Your task to perform on an android device: toggle translation in the chrome app Image 0: 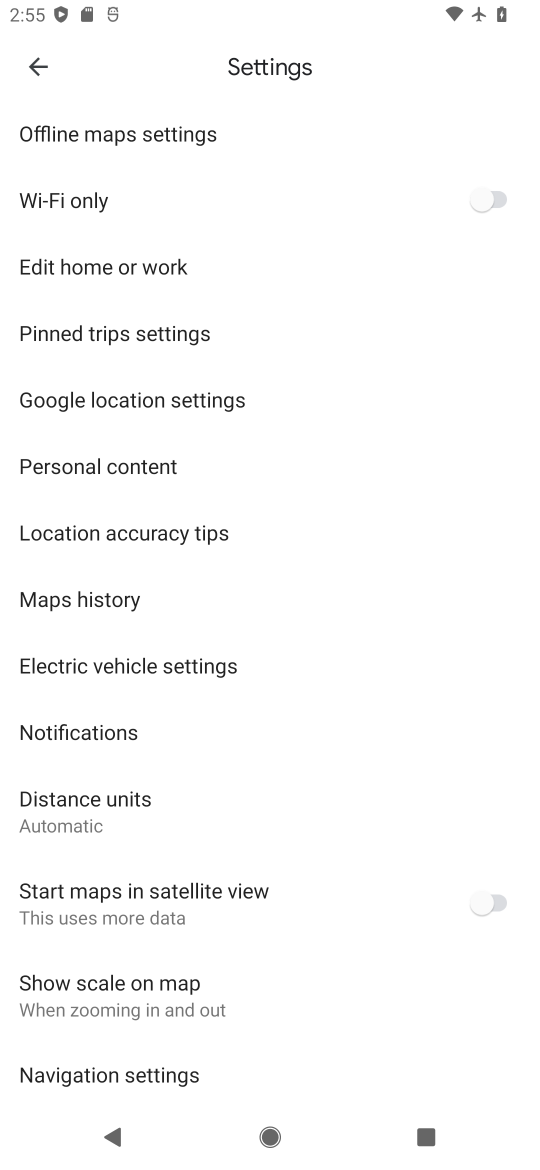
Step 0: press home button
Your task to perform on an android device: toggle translation in the chrome app Image 1: 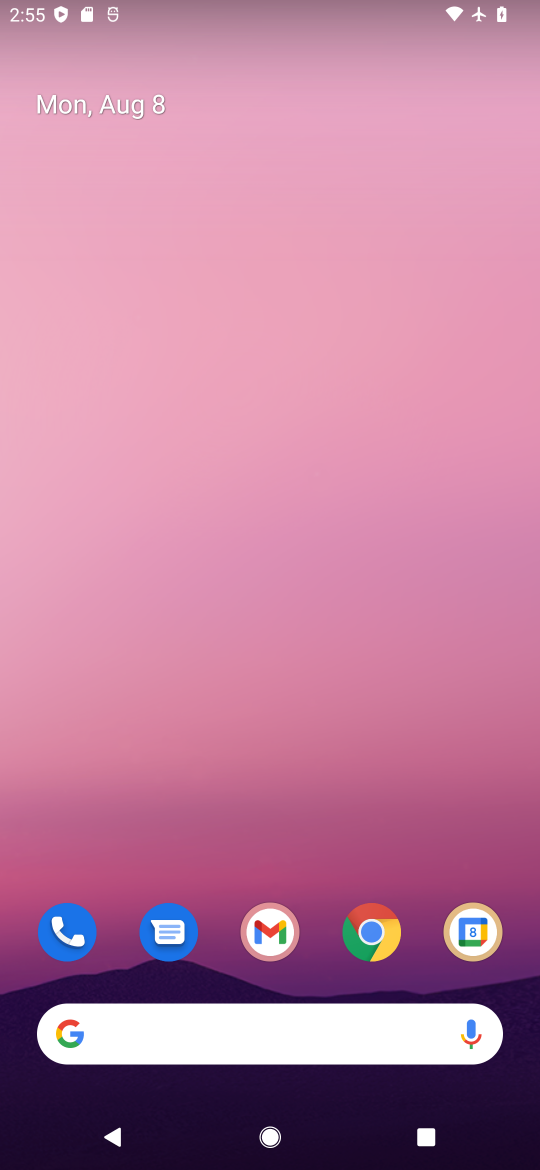
Step 1: drag from (361, 835) to (432, 14)
Your task to perform on an android device: toggle translation in the chrome app Image 2: 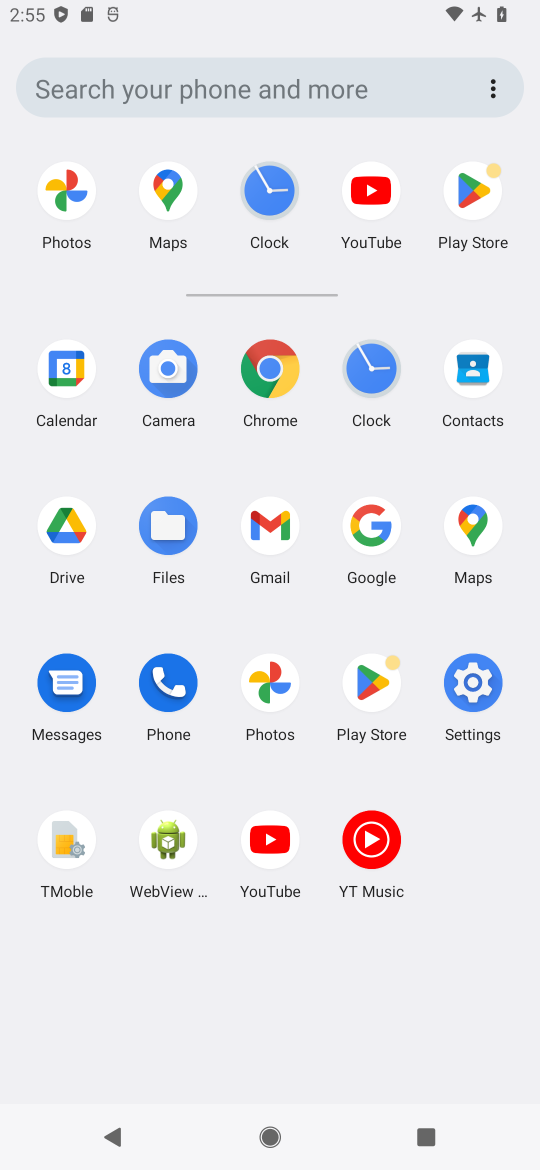
Step 2: click (262, 352)
Your task to perform on an android device: toggle translation in the chrome app Image 3: 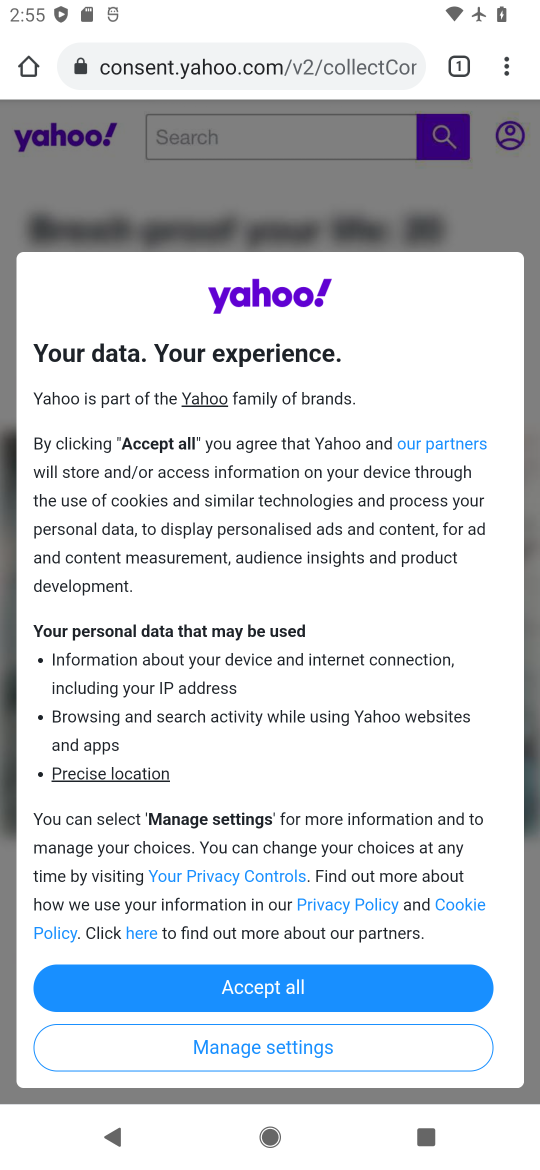
Step 3: drag from (492, 48) to (346, 881)
Your task to perform on an android device: toggle translation in the chrome app Image 4: 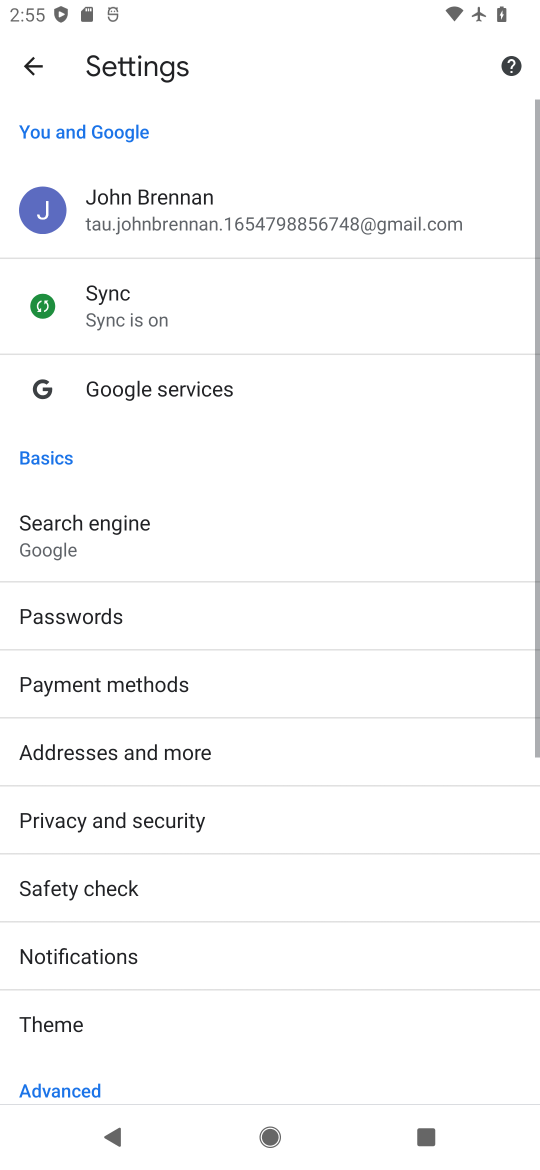
Step 4: drag from (361, 793) to (454, 105)
Your task to perform on an android device: toggle translation in the chrome app Image 5: 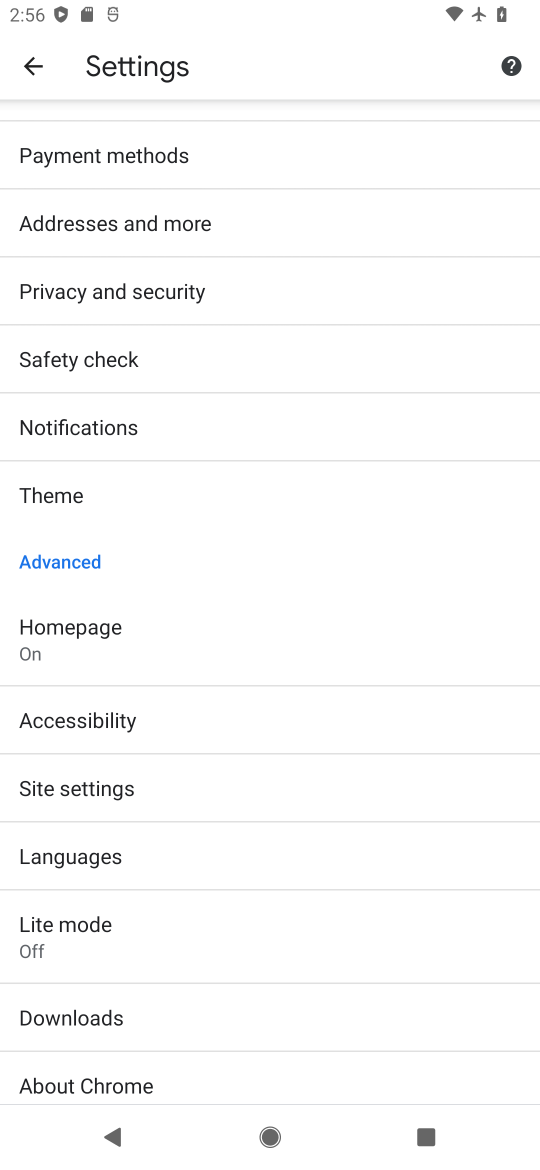
Step 5: click (106, 849)
Your task to perform on an android device: toggle translation in the chrome app Image 6: 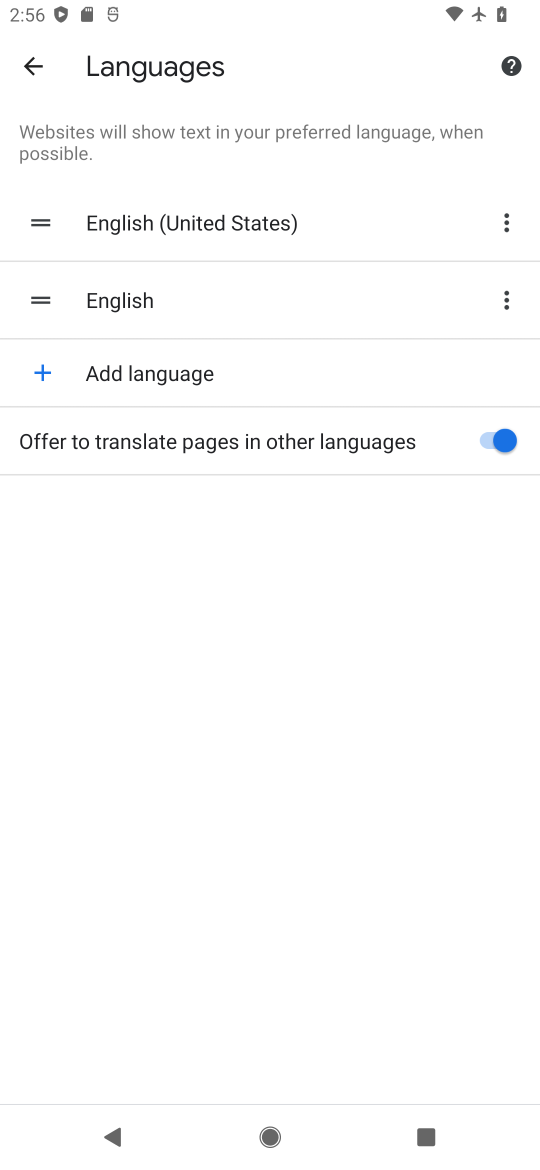
Step 6: click (504, 444)
Your task to perform on an android device: toggle translation in the chrome app Image 7: 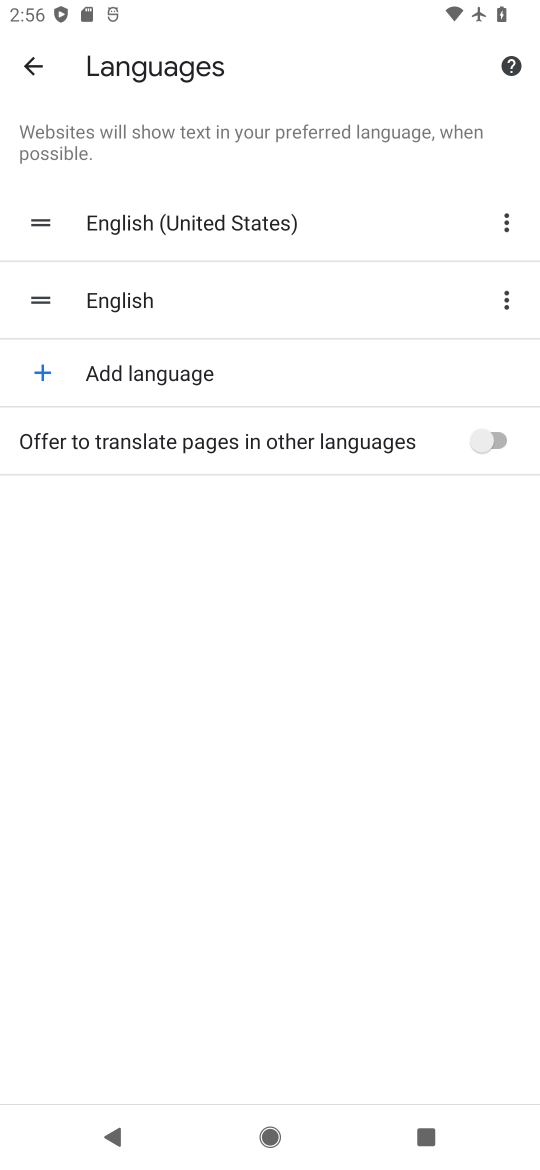
Step 7: task complete